Your task to perform on an android device: uninstall "Flipkart Online Shopping App" Image 0: 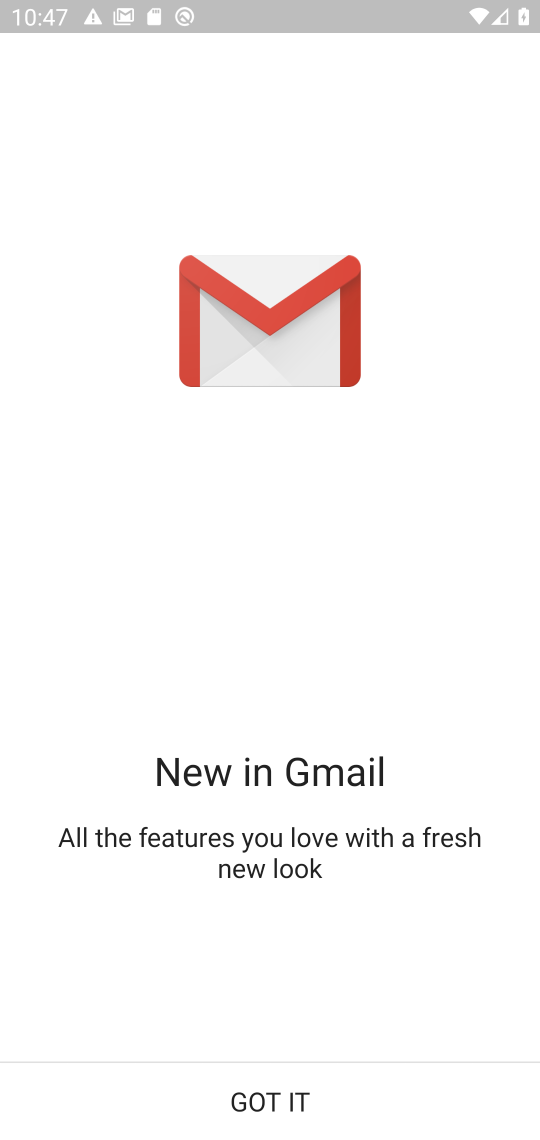
Step 0: press home button
Your task to perform on an android device: uninstall "Flipkart Online Shopping App" Image 1: 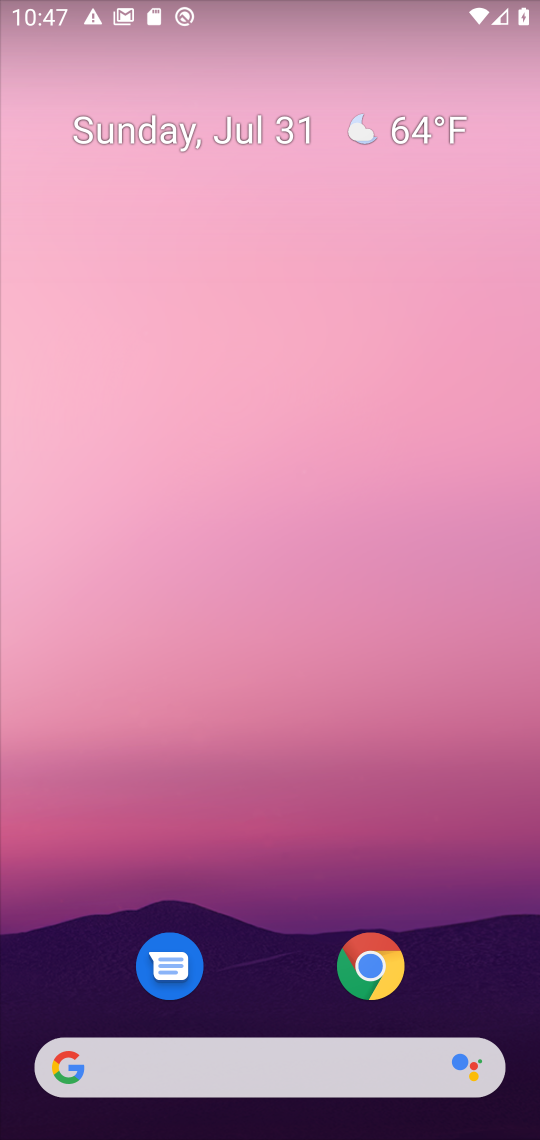
Step 1: drag from (214, 840) to (196, 52)
Your task to perform on an android device: uninstall "Flipkart Online Shopping App" Image 2: 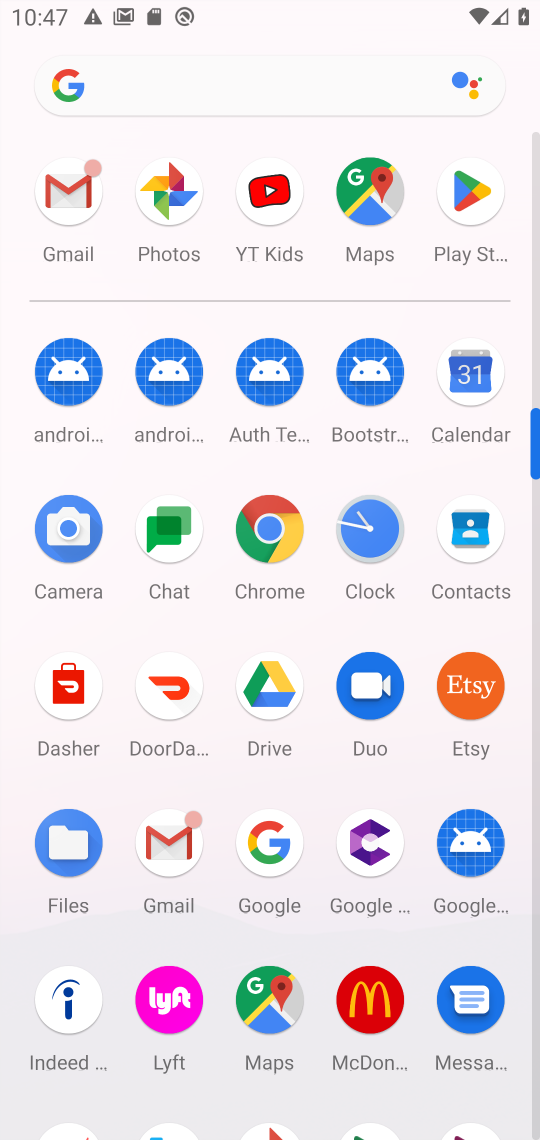
Step 2: click (489, 235)
Your task to perform on an android device: uninstall "Flipkart Online Shopping App" Image 3: 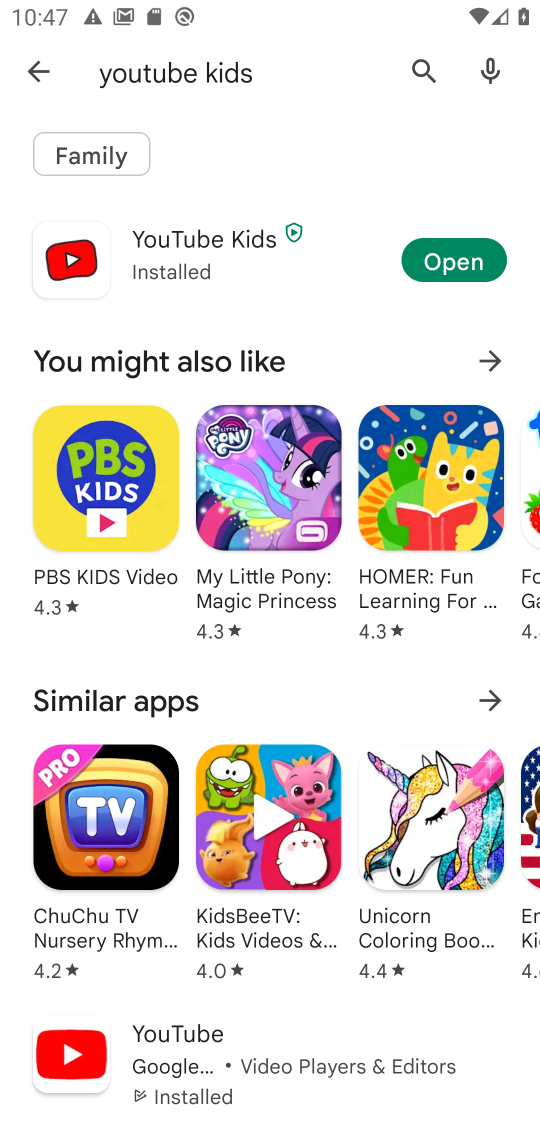
Step 3: click (237, 75)
Your task to perform on an android device: uninstall "Flipkart Online Shopping App" Image 4: 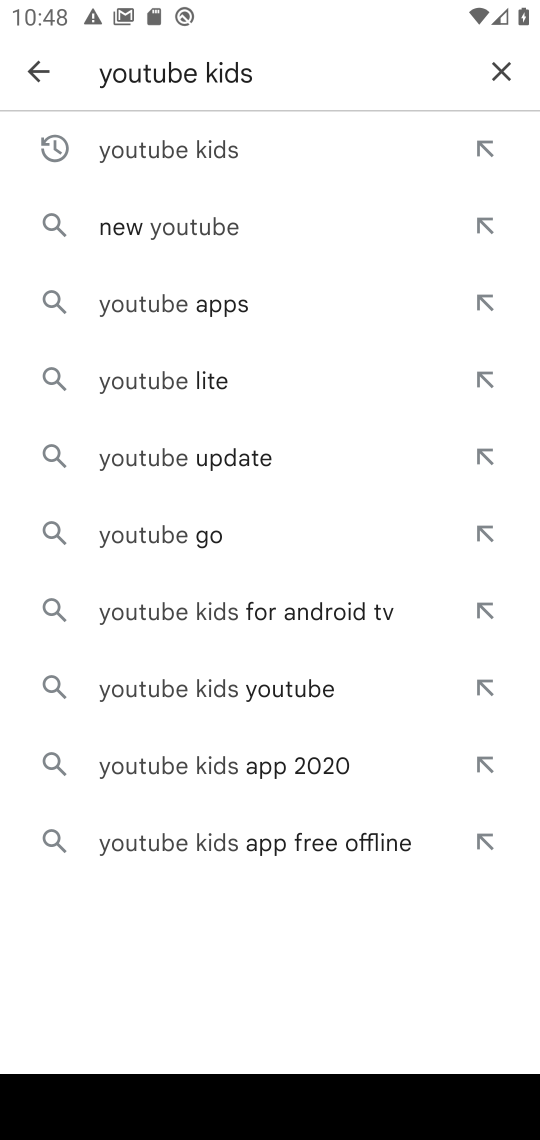
Step 4: click (495, 69)
Your task to perform on an android device: uninstall "Flipkart Online Shopping App" Image 5: 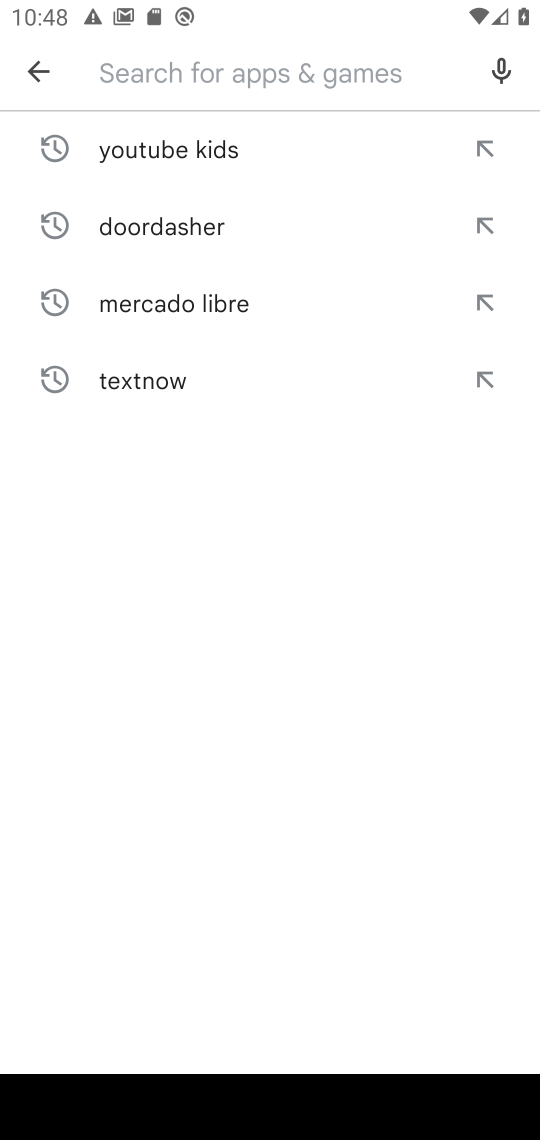
Step 5: type "flipkart"
Your task to perform on an android device: uninstall "Flipkart Online Shopping App" Image 6: 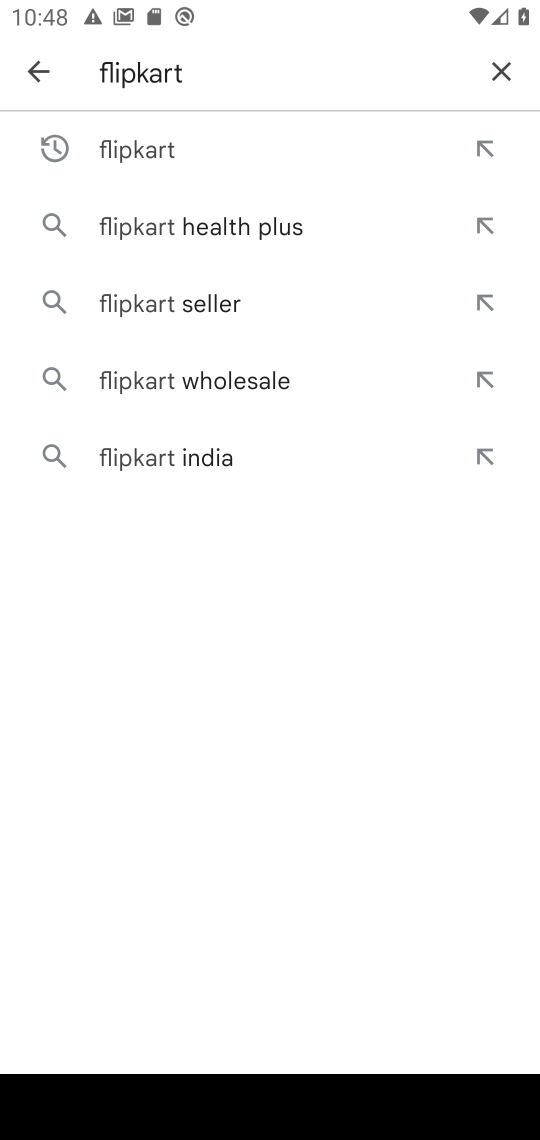
Step 6: click (179, 157)
Your task to perform on an android device: uninstall "Flipkart Online Shopping App" Image 7: 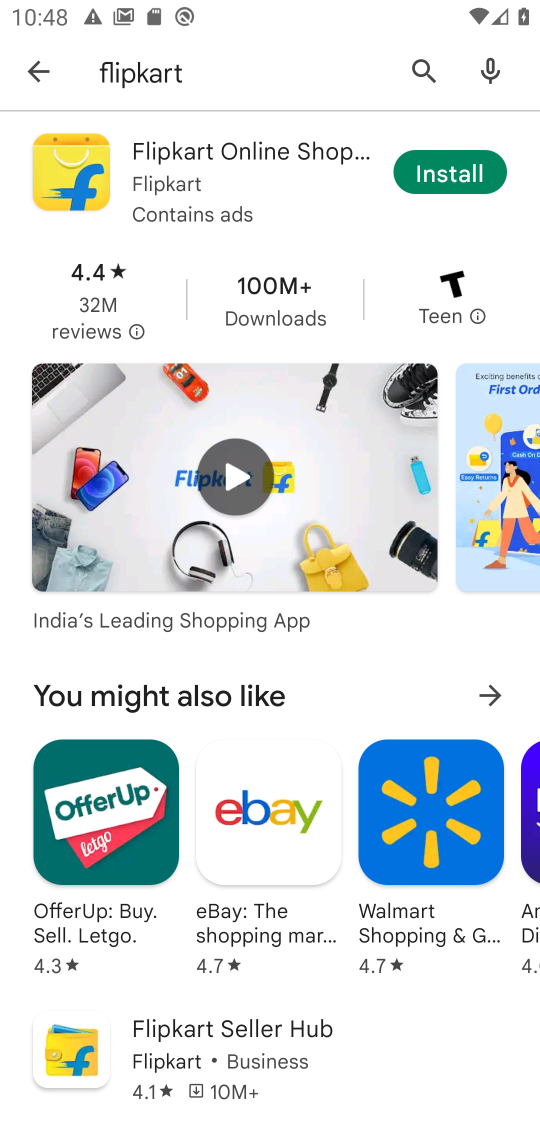
Step 7: task complete